Your task to perform on an android device: Do I have any events this weekend? Image 0: 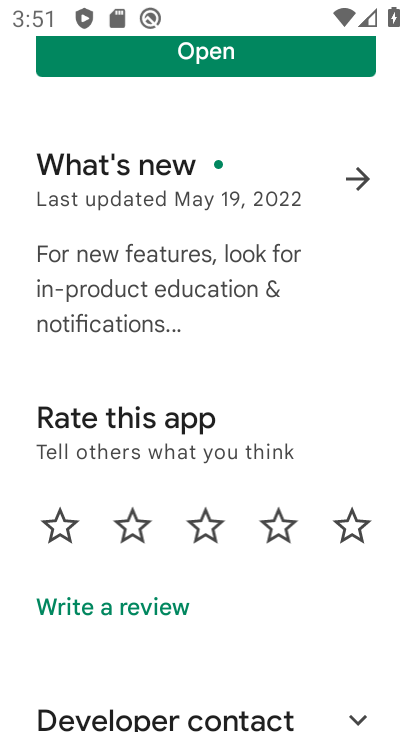
Step 0: press home button
Your task to perform on an android device: Do I have any events this weekend? Image 1: 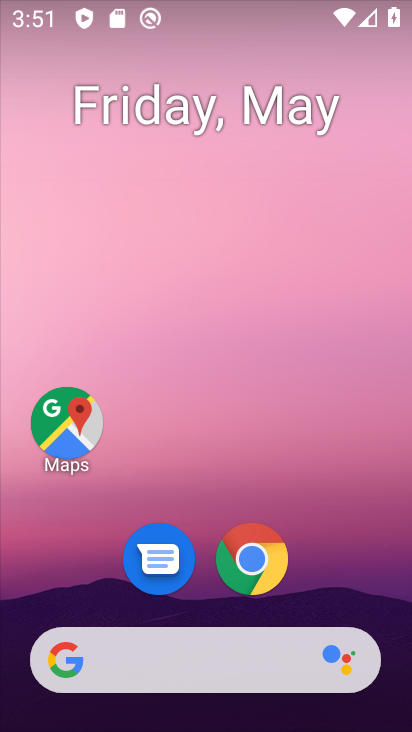
Step 1: drag from (281, 447) to (279, 335)
Your task to perform on an android device: Do I have any events this weekend? Image 2: 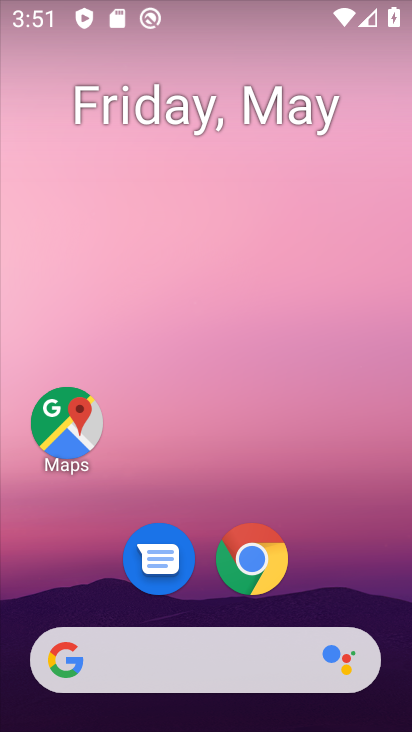
Step 2: drag from (322, 592) to (297, 65)
Your task to perform on an android device: Do I have any events this weekend? Image 3: 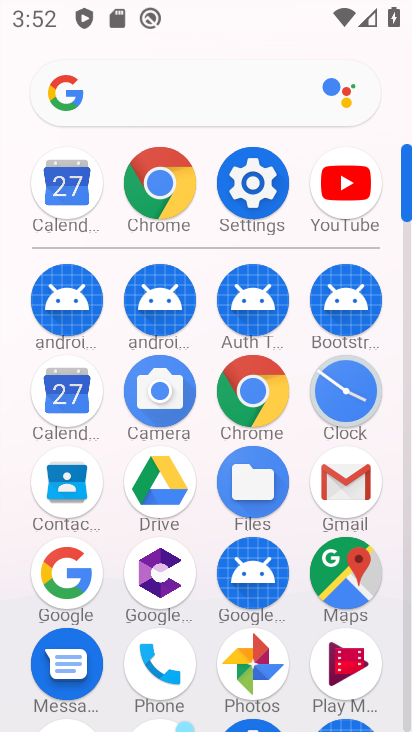
Step 3: click (64, 194)
Your task to perform on an android device: Do I have any events this weekend? Image 4: 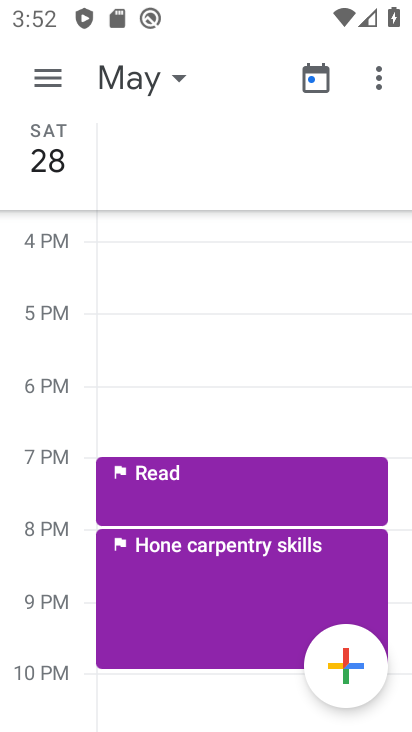
Step 4: click (45, 80)
Your task to perform on an android device: Do I have any events this weekend? Image 5: 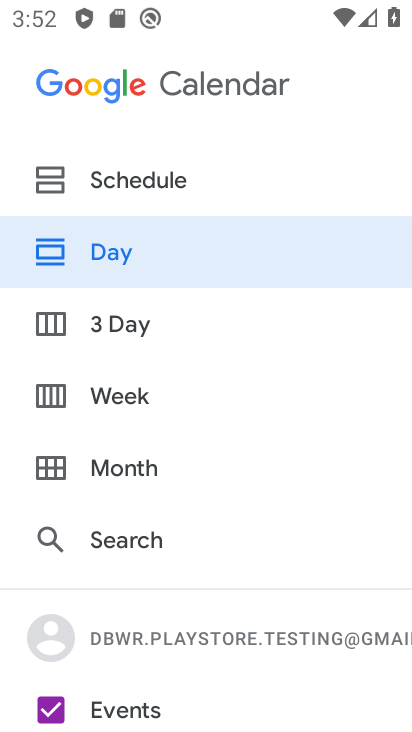
Step 5: click (101, 395)
Your task to perform on an android device: Do I have any events this weekend? Image 6: 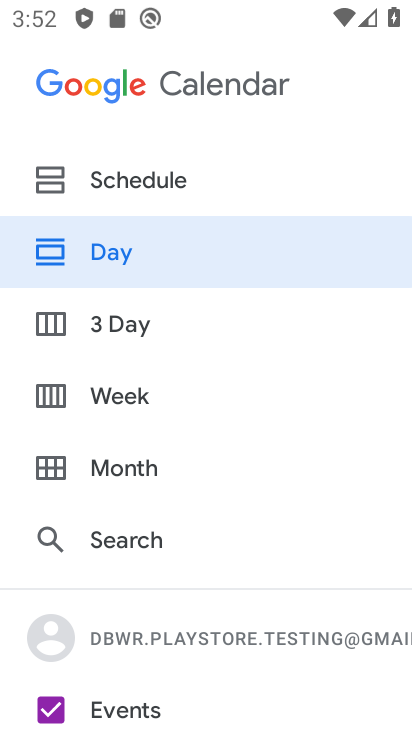
Step 6: click (101, 386)
Your task to perform on an android device: Do I have any events this weekend? Image 7: 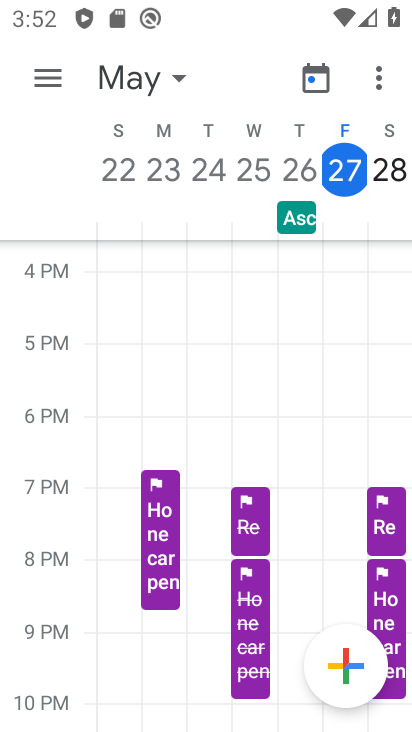
Step 7: task complete